Your task to perform on an android device: all mails in gmail Image 0: 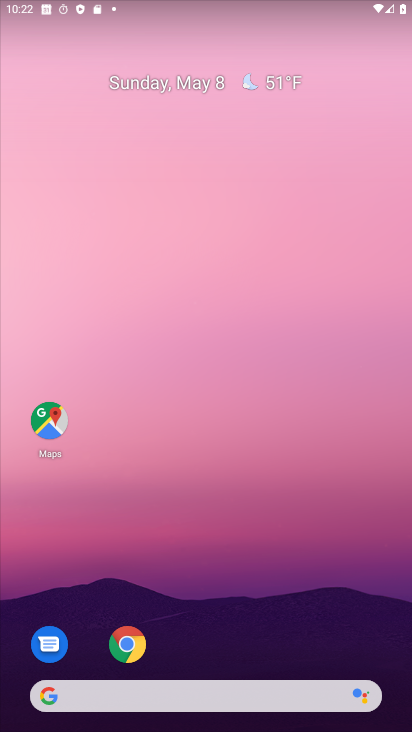
Step 0: drag from (218, 626) to (240, 274)
Your task to perform on an android device: all mails in gmail Image 1: 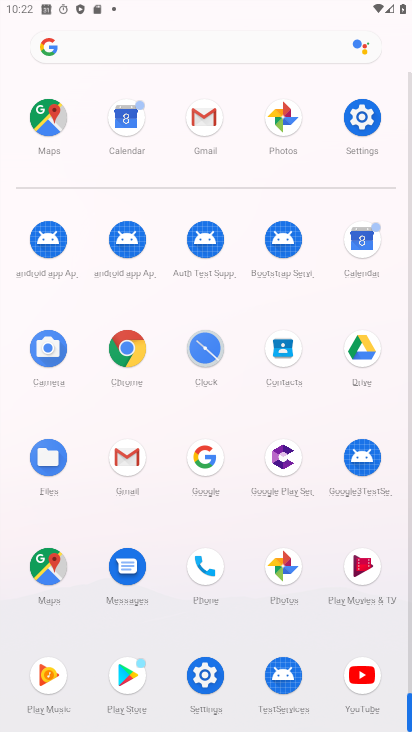
Step 1: click (144, 455)
Your task to perform on an android device: all mails in gmail Image 2: 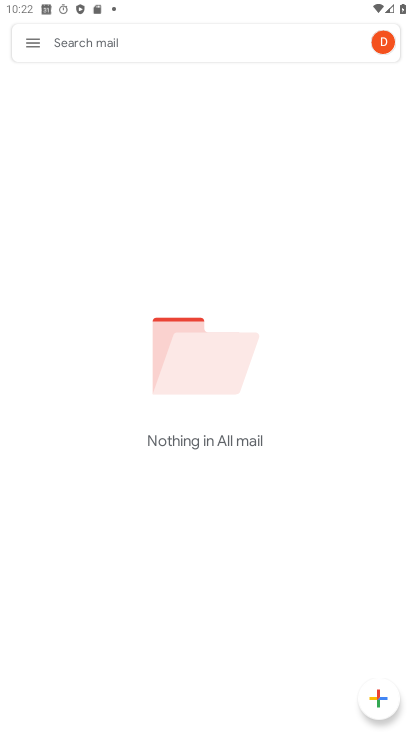
Step 2: click (29, 56)
Your task to perform on an android device: all mails in gmail Image 3: 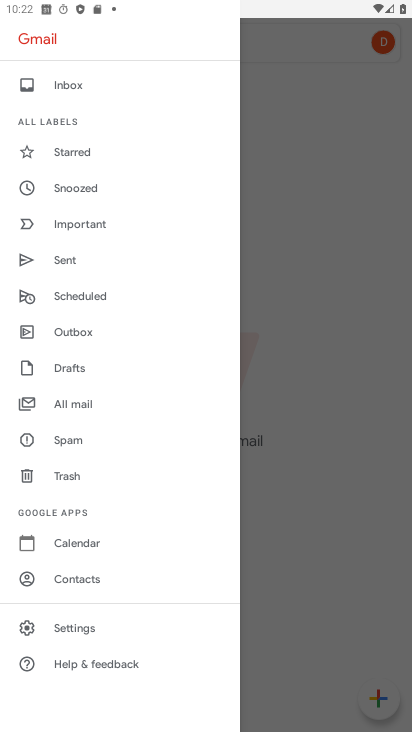
Step 3: click (81, 401)
Your task to perform on an android device: all mails in gmail Image 4: 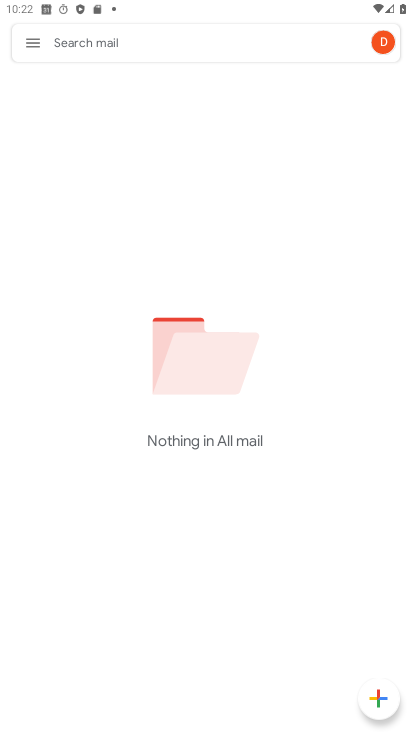
Step 4: task complete